Your task to perform on an android device: Is it going to rain today? Image 0: 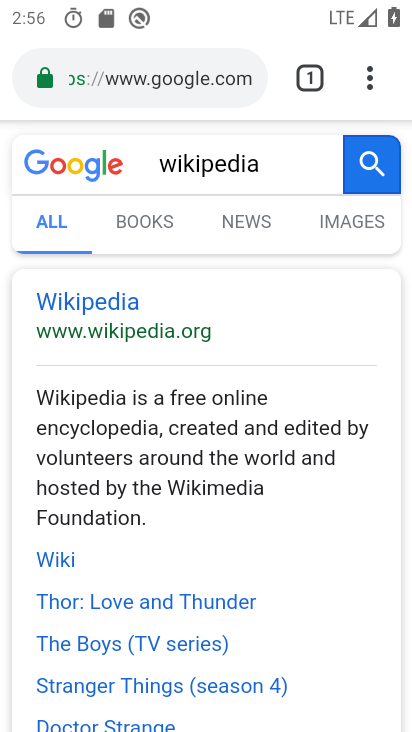
Step 0: press home button
Your task to perform on an android device: Is it going to rain today? Image 1: 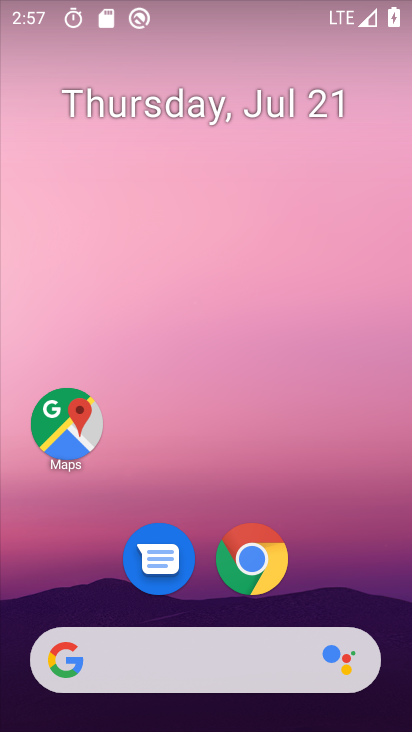
Step 1: click (251, 648)
Your task to perform on an android device: Is it going to rain today? Image 2: 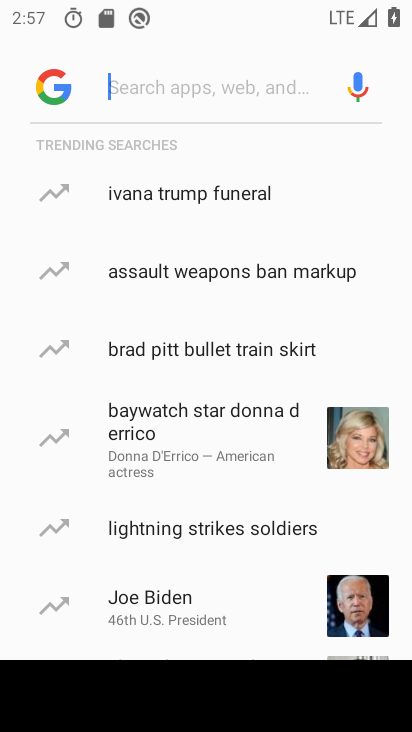
Step 2: type "weather"
Your task to perform on an android device: Is it going to rain today? Image 3: 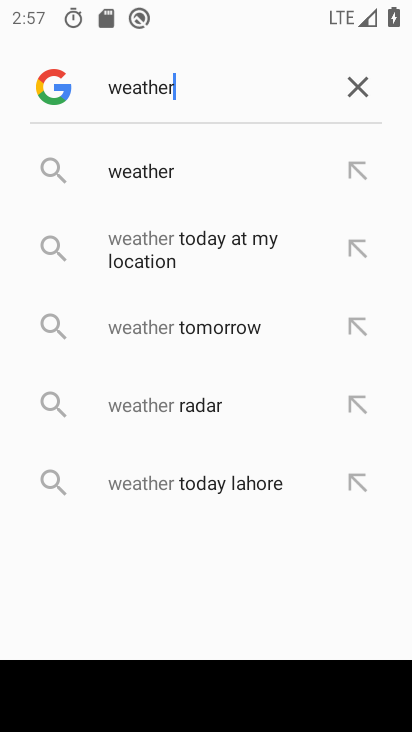
Step 3: click (266, 177)
Your task to perform on an android device: Is it going to rain today? Image 4: 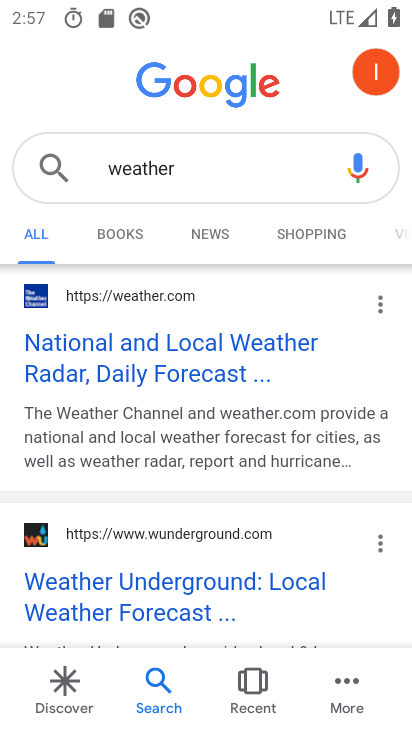
Step 4: task complete